Your task to perform on an android device: check storage Image 0: 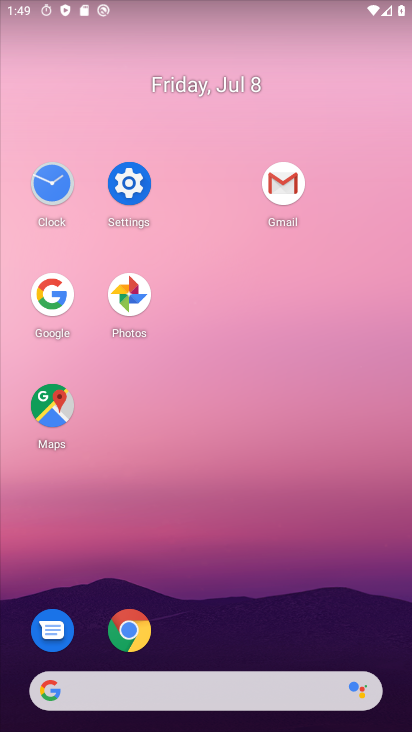
Step 0: click (133, 185)
Your task to perform on an android device: check storage Image 1: 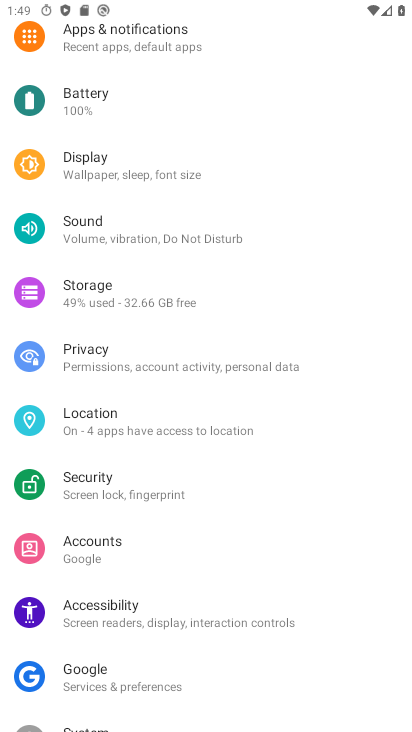
Step 1: click (208, 310)
Your task to perform on an android device: check storage Image 2: 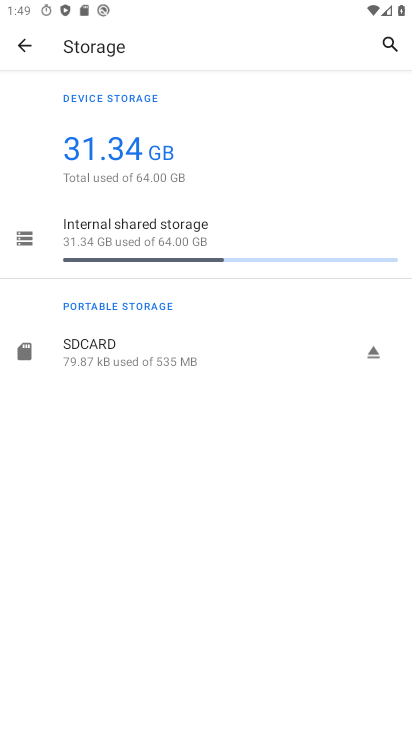
Step 2: task complete